Your task to perform on an android device: Show me the top rated dinnerware on Crate & Barrel Image 0: 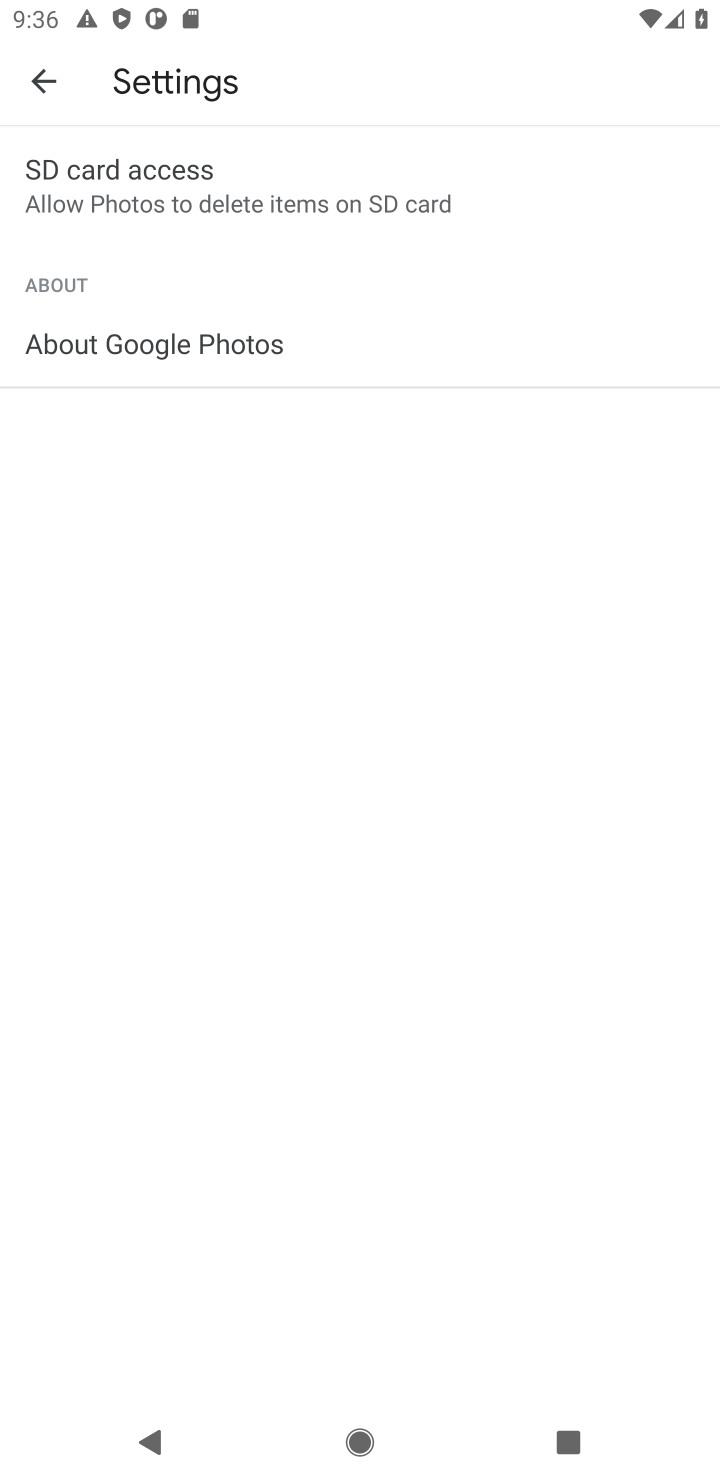
Step 0: press home button
Your task to perform on an android device: Show me the top rated dinnerware on Crate & Barrel Image 1: 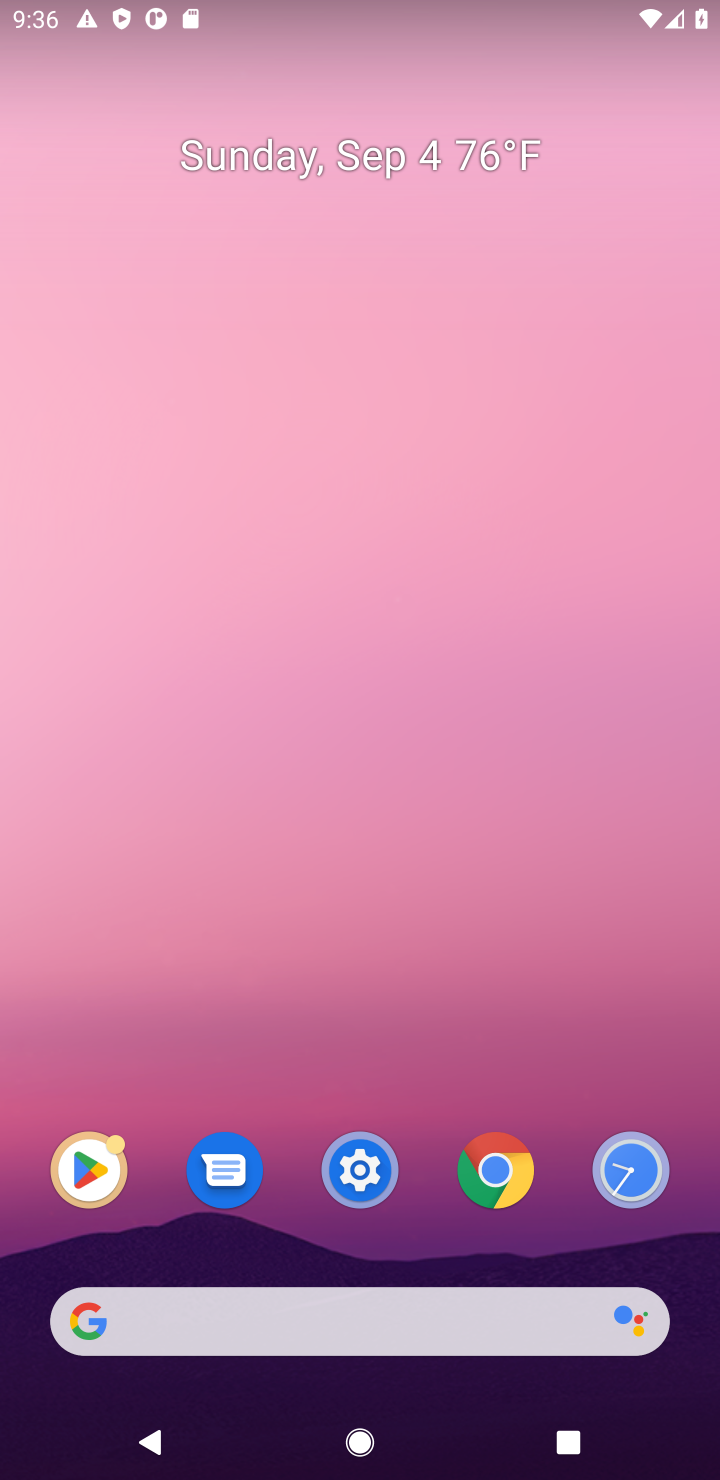
Step 1: click (288, 1322)
Your task to perform on an android device: Show me the top rated dinnerware on Crate & Barrel Image 2: 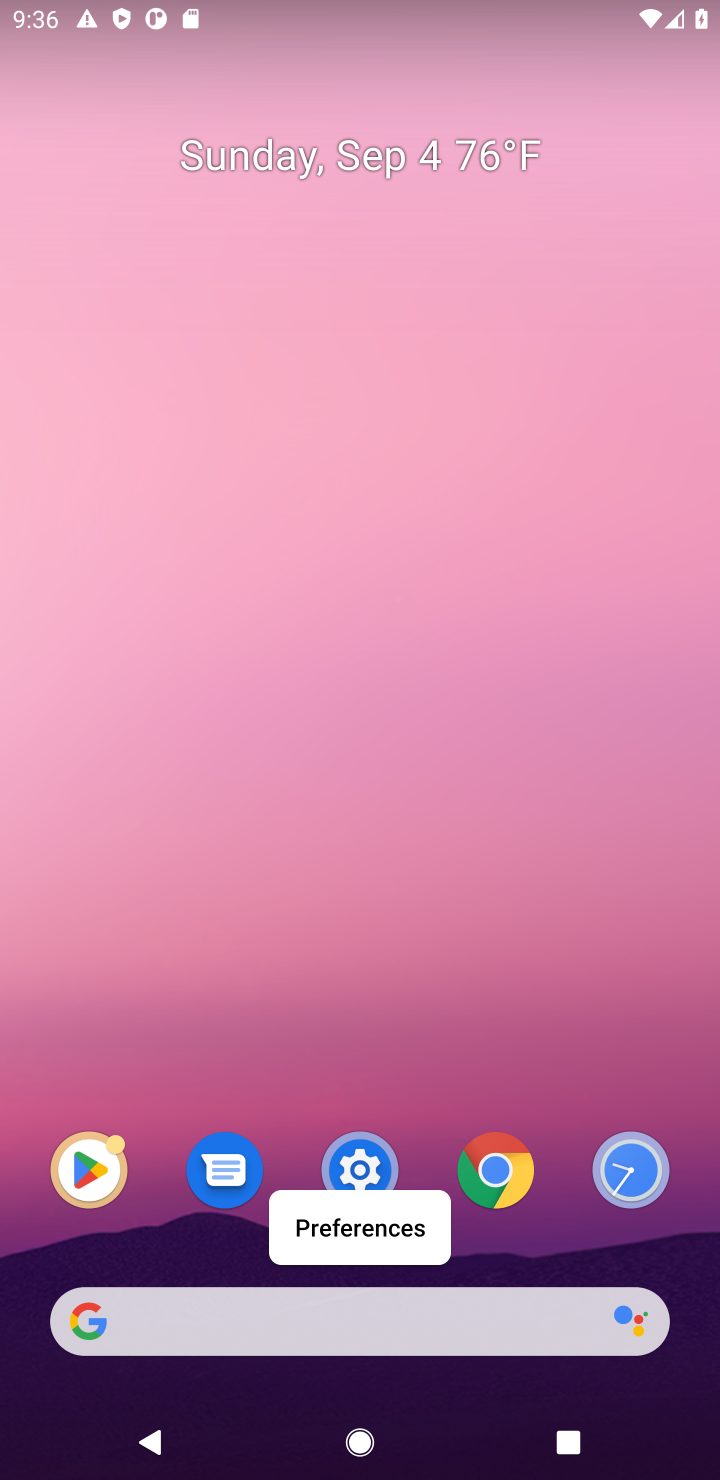
Step 2: click (288, 1322)
Your task to perform on an android device: Show me the top rated dinnerware on Crate & Barrel Image 3: 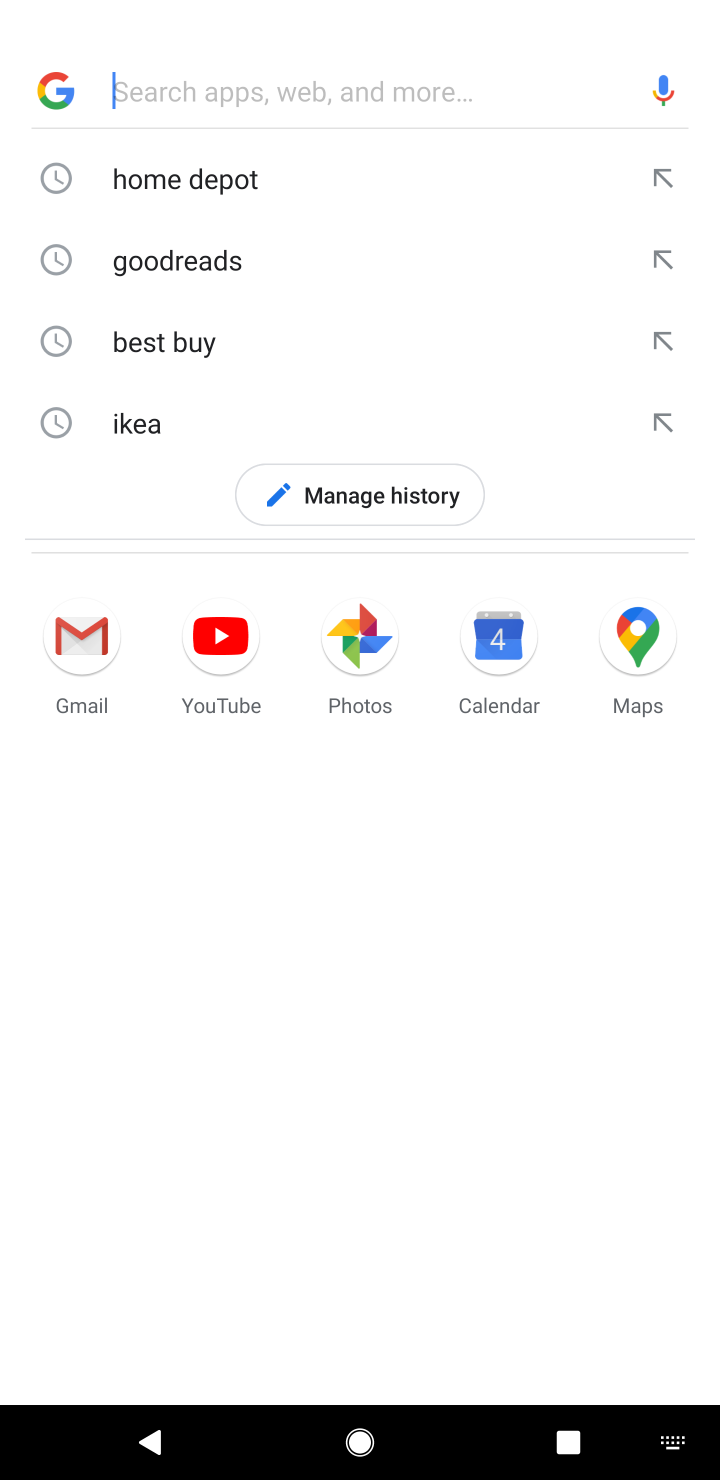
Step 3: type "Crate & Barrel"
Your task to perform on an android device: Show me the top rated dinnerware on Crate & Barrel Image 4: 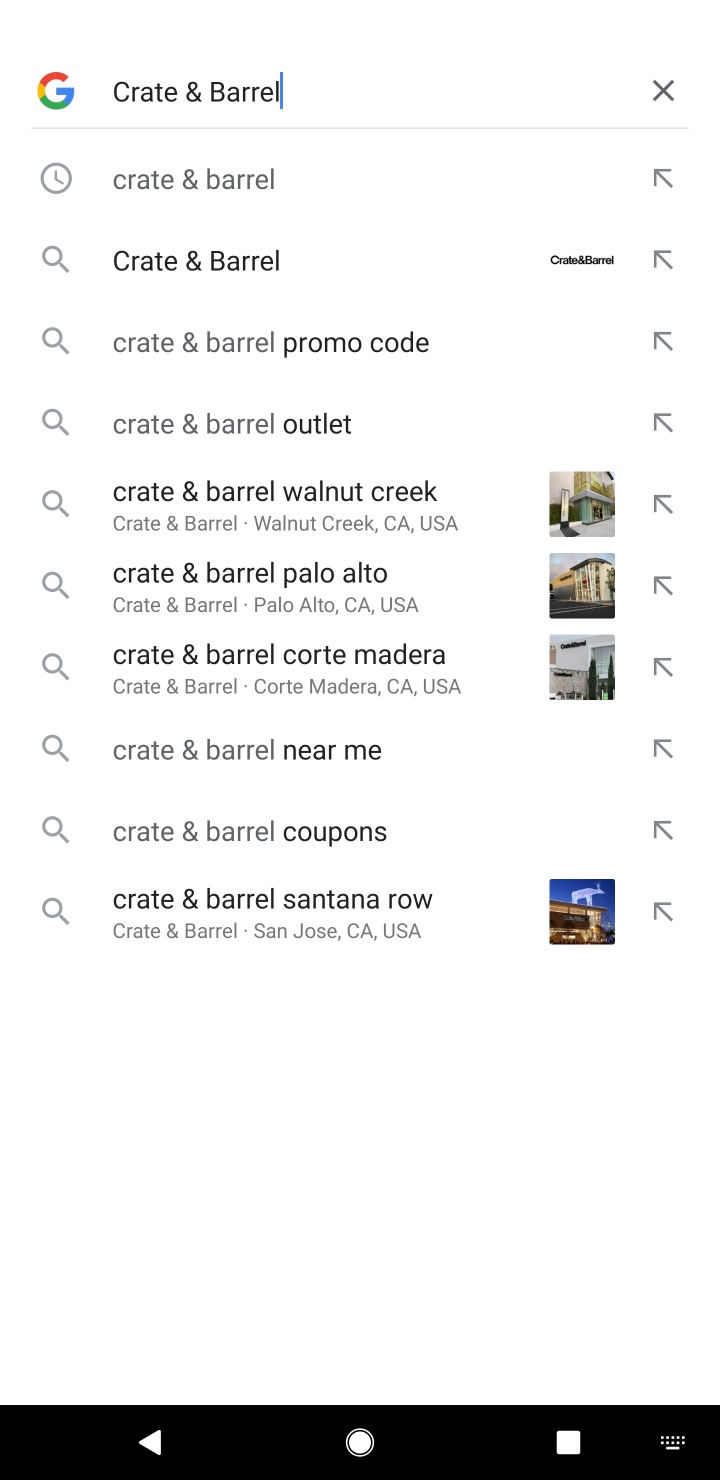
Step 4: click (150, 189)
Your task to perform on an android device: Show me the top rated dinnerware on Crate & Barrel Image 5: 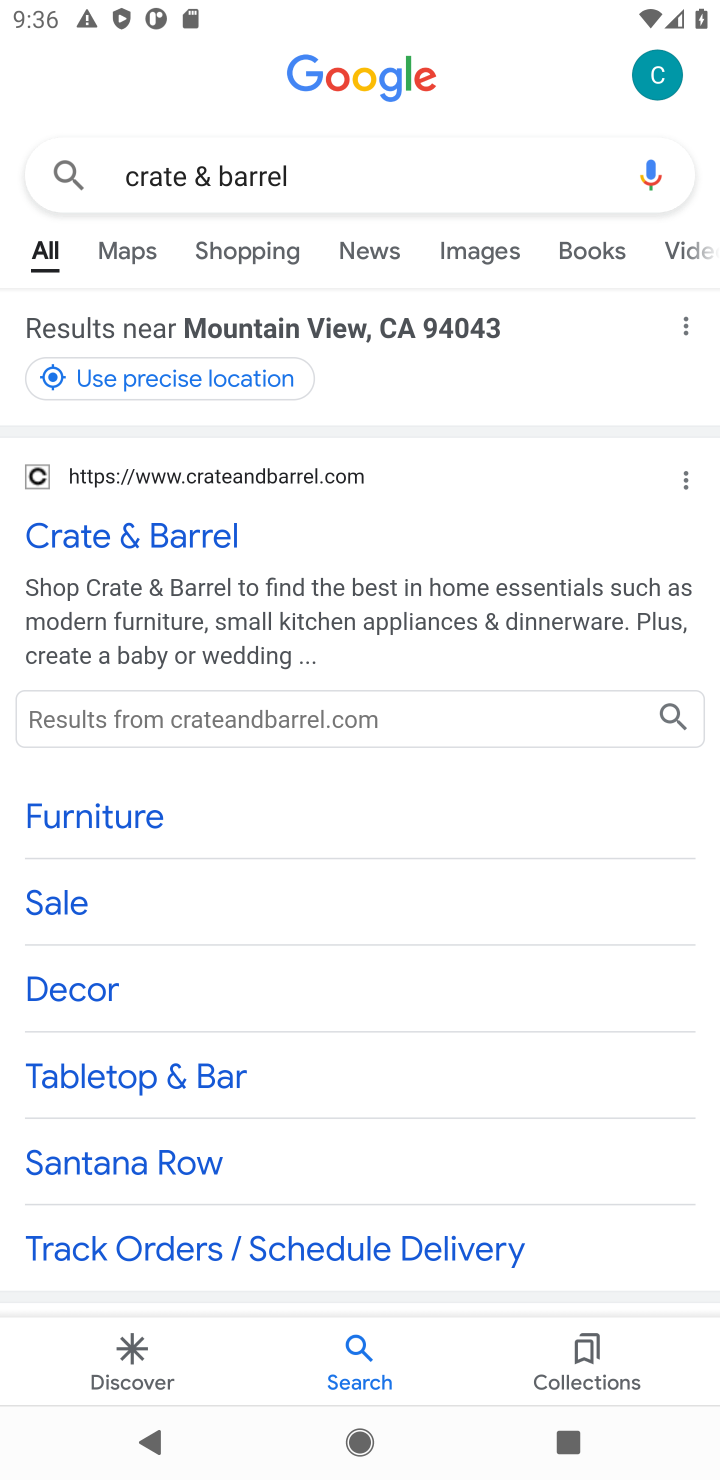
Step 5: click (215, 525)
Your task to perform on an android device: Show me the top rated dinnerware on Crate & Barrel Image 6: 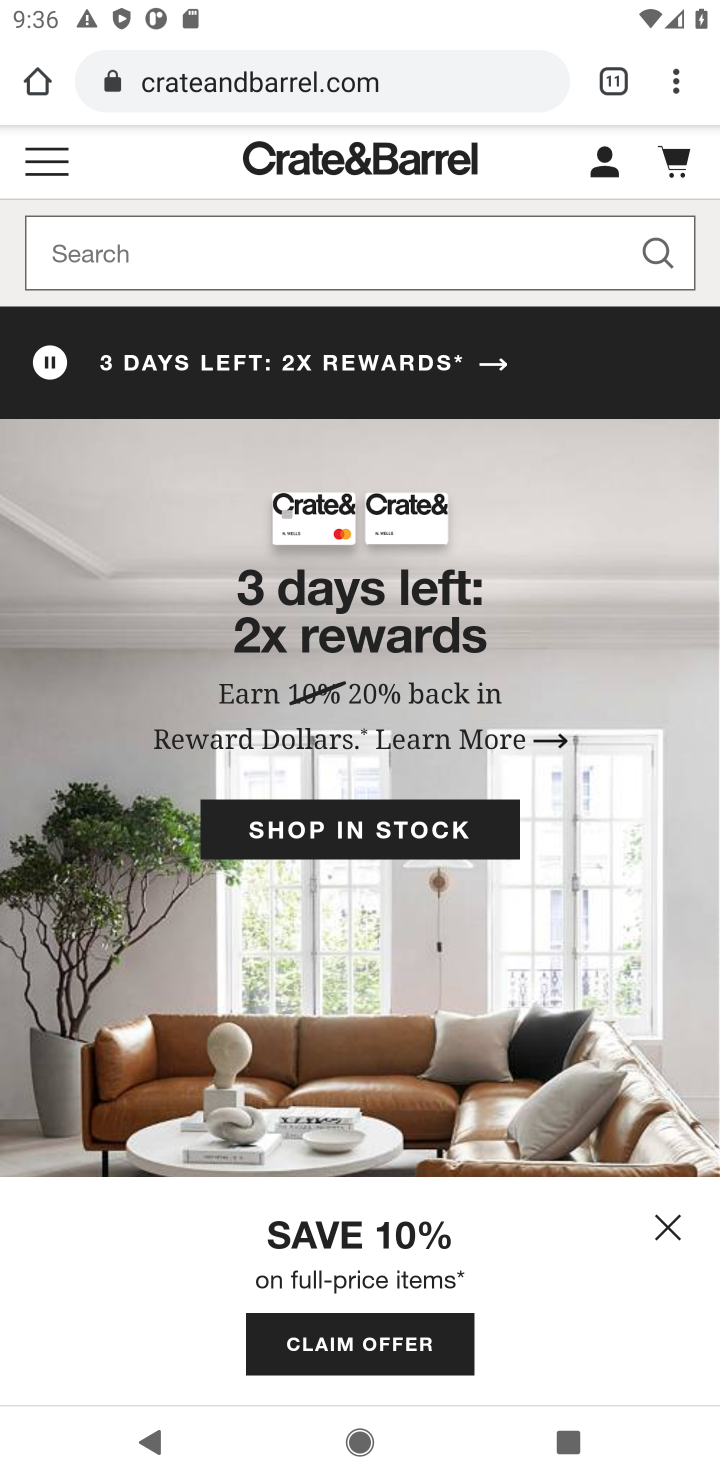
Step 6: click (429, 274)
Your task to perform on an android device: Show me the top rated dinnerware on Crate & Barrel Image 7: 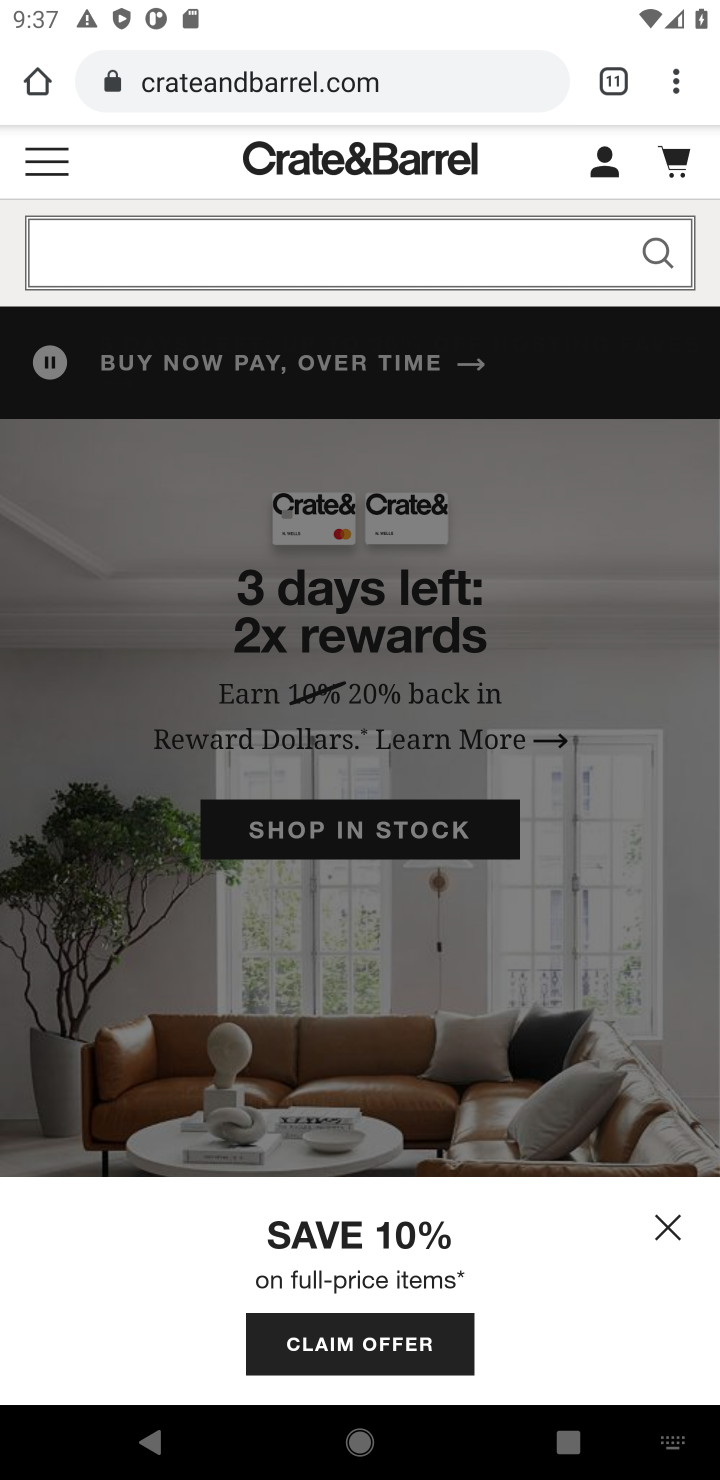
Step 7: type "dinnerware"
Your task to perform on an android device: Show me the top rated dinnerware on Crate & Barrel Image 8: 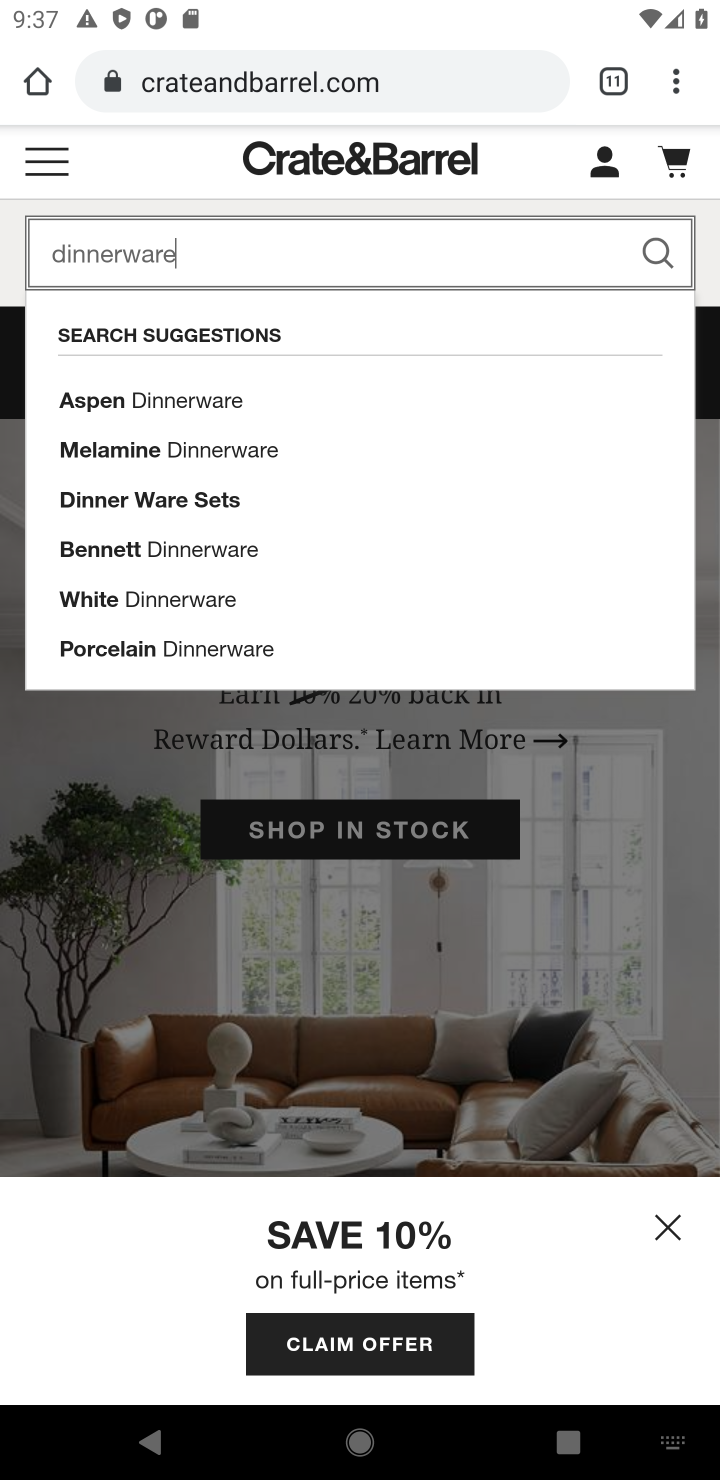
Step 8: click (682, 260)
Your task to perform on an android device: Show me the top rated dinnerware on Crate & Barrel Image 9: 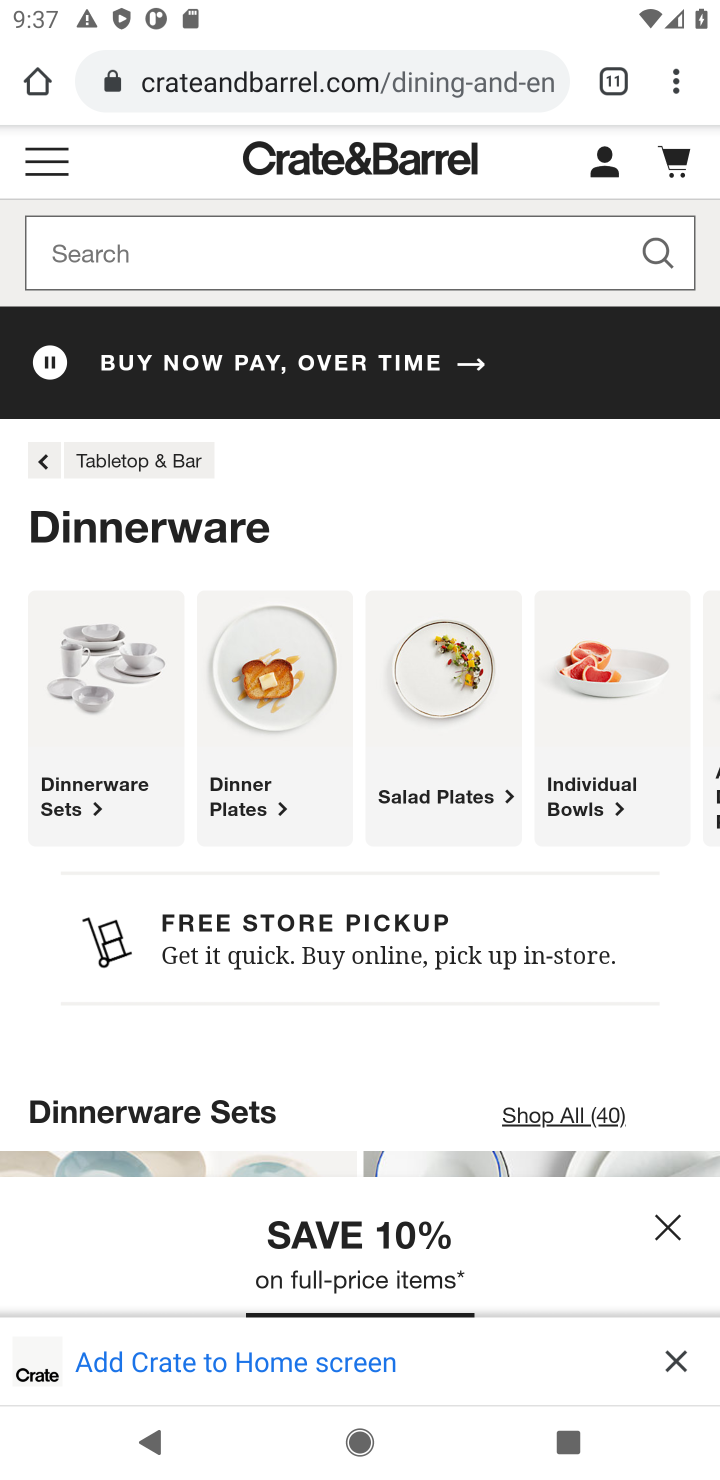
Step 9: drag from (485, 632) to (483, 495)
Your task to perform on an android device: Show me the top rated dinnerware on Crate & Barrel Image 10: 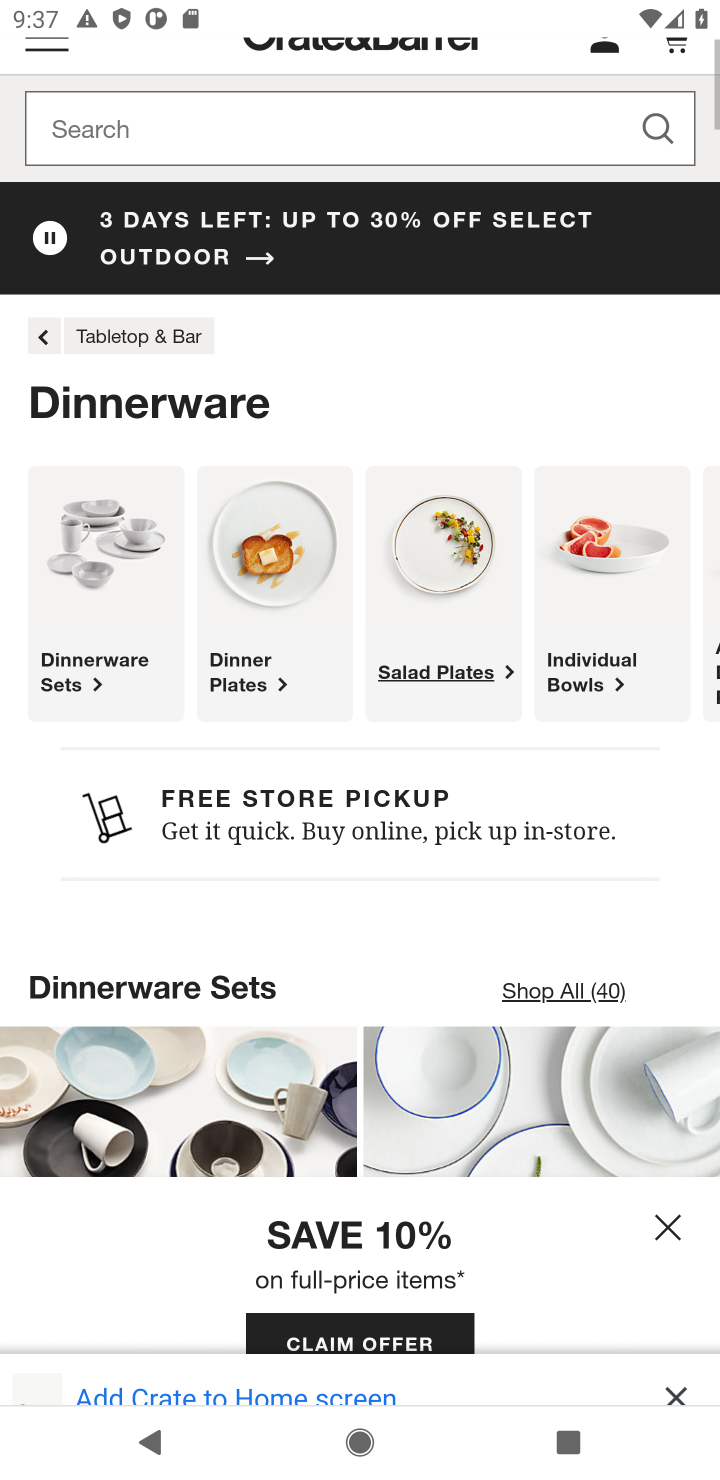
Step 10: drag from (406, 774) to (427, 546)
Your task to perform on an android device: Show me the top rated dinnerware on Crate & Barrel Image 11: 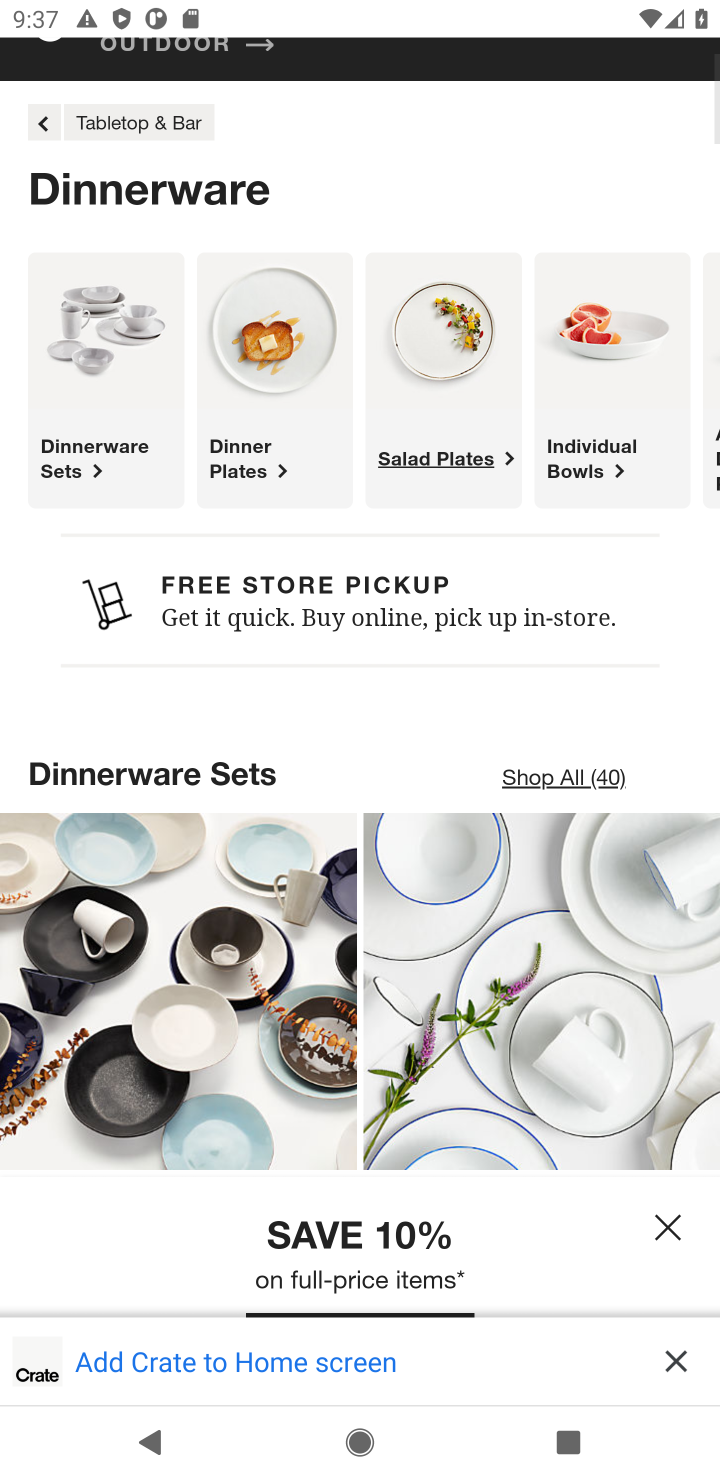
Step 11: click (404, 597)
Your task to perform on an android device: Show me the top rated dinnerware on Crate & Barrel Image 12: 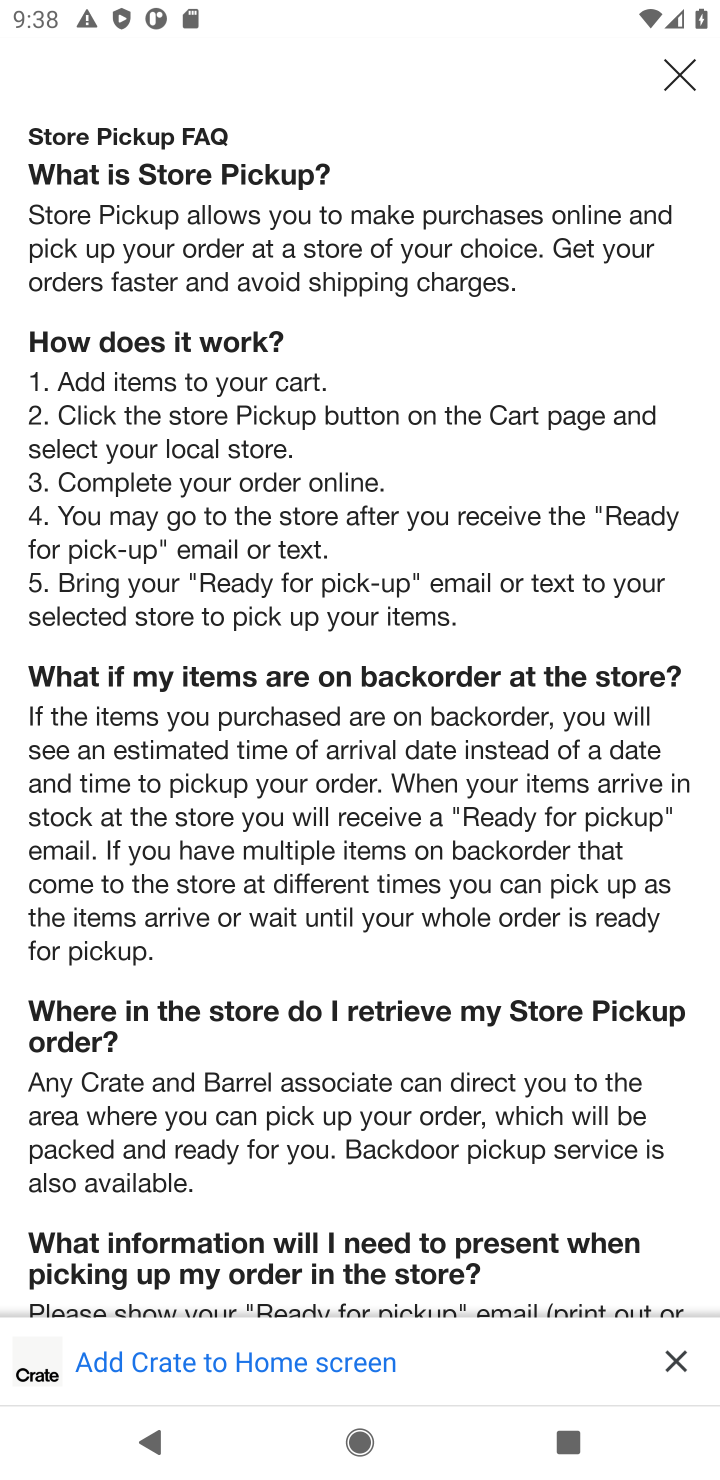
Step 12: task complete